Your task to perform on an android device: Go to Yahoo.com Image 0: 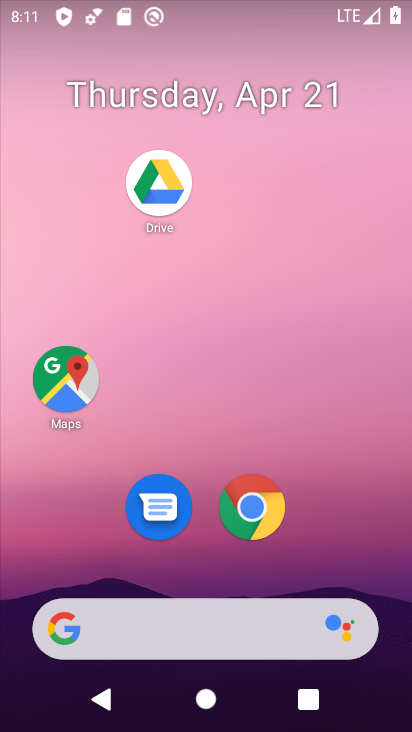
Step 0: drag from (381, 541) to (368, 128)
Your task to perform on an android device: Go to Yahoo.com Image 1: 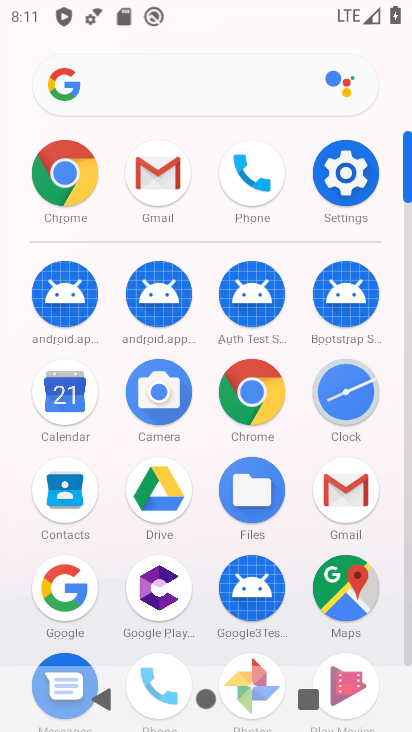
Step 1: click (259, 403)
Your task to perform on an android device: Go to Yahoo.com Image 2: 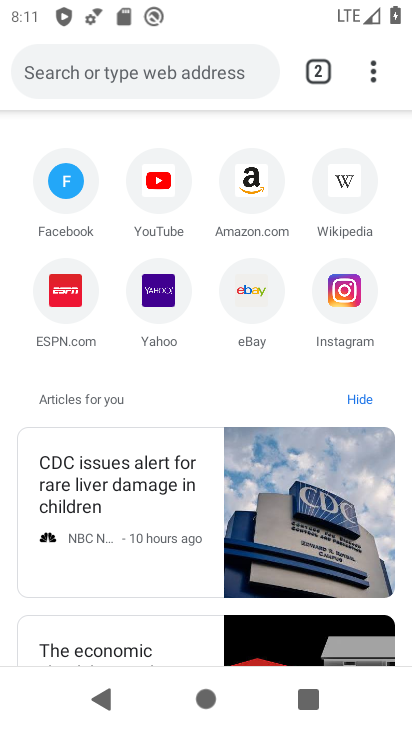
Step 2: click (156, 297)
Your task to perform on an android device: Go to Yahoo.com Image 3: 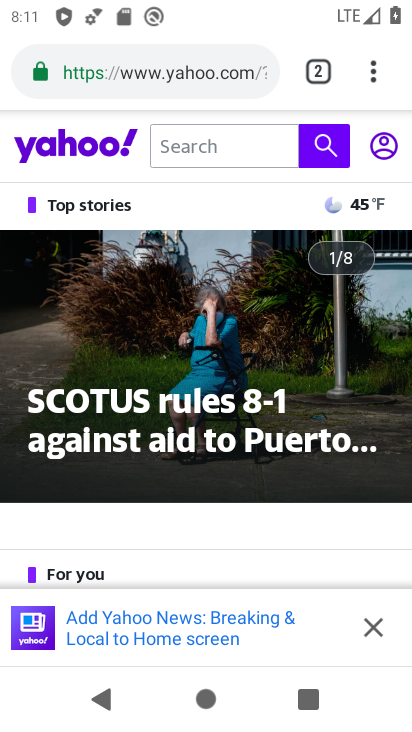
Step 3: task complete